Your task to perform on an android device: Go to network settings Image 0: 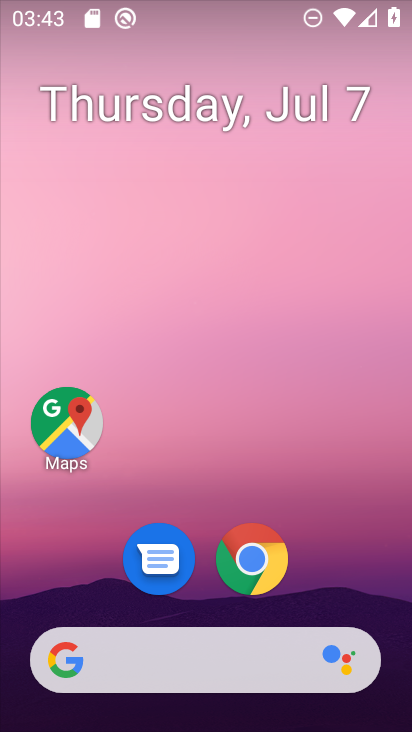
Step 0: drag from (364, 586) to (376, 297)
Your task to perform on an android device: Go to network settings Image 1: 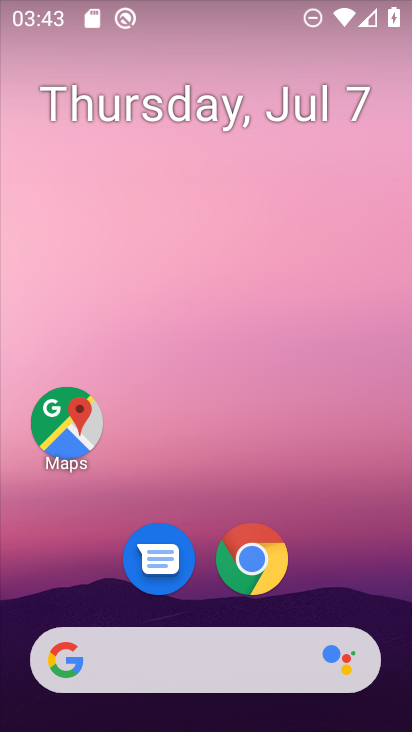
Step 1: drag from (356, 545) to (357, 184)
Your task to perform on an android device: Go to network settings Image 2: 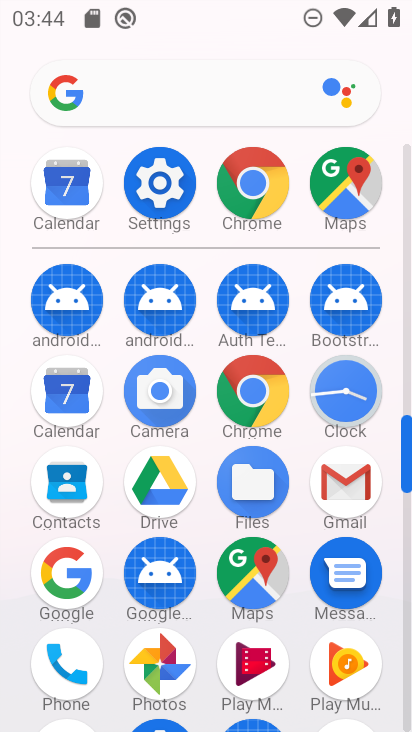
Step 2: click (171, 187)
Your task to perform on an android device: Go to network settings Image 3: 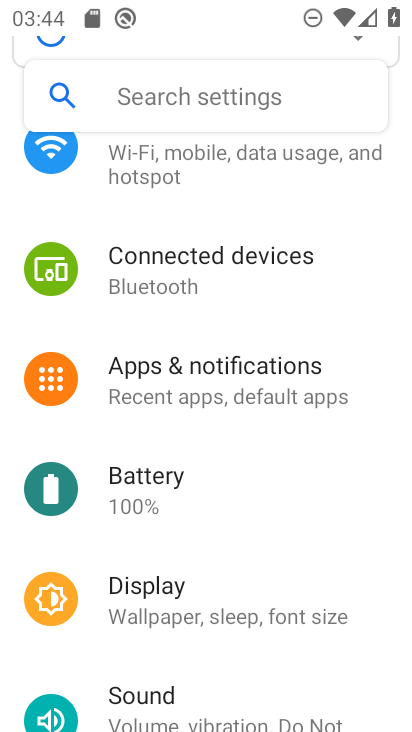
Step 3: drag from (301, 522) to (298, 430)
Your task to perform on an android device: Go to network settings Image 4: 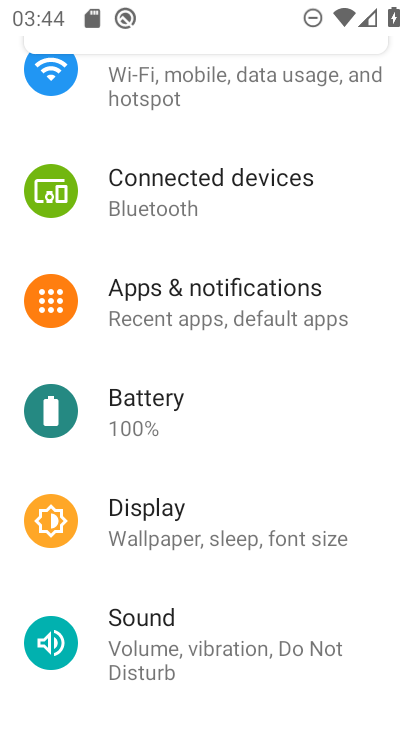
Step 4: drag from (343, 578) to (354, 497)
Your task to perform on an android device: Go to network settings Image 5: 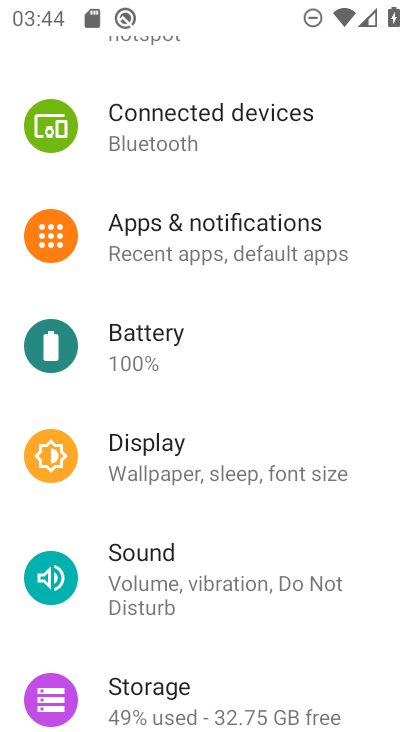
Step 5: drag from (368, 569) to (368, 478)
Your task to perform on an android device: Go to network settings Image 6: 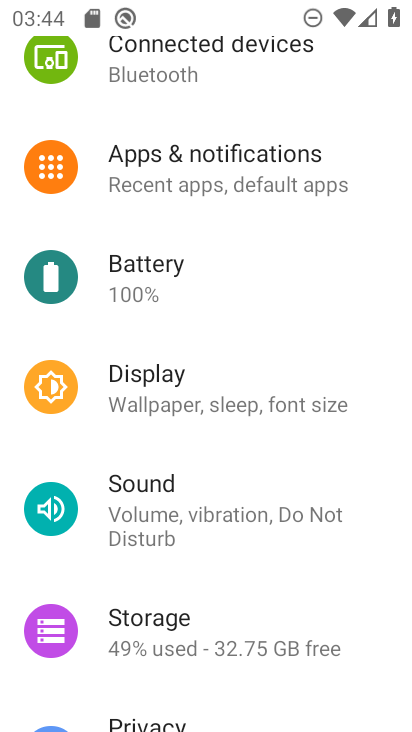
Step 6: drag from (361, 570) to (362, 510)
Your task to perform on an android device: Go to network settings Image 7: 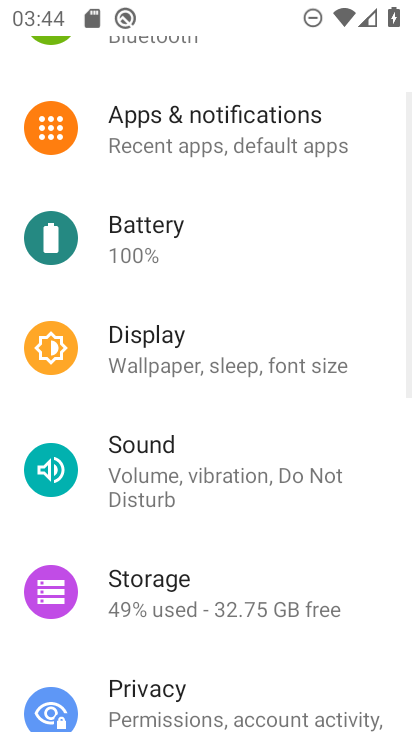
Step 7: drag from (361, 549) to (360, 463)
Your task to perform on an android device: Go to network settings Image 8: 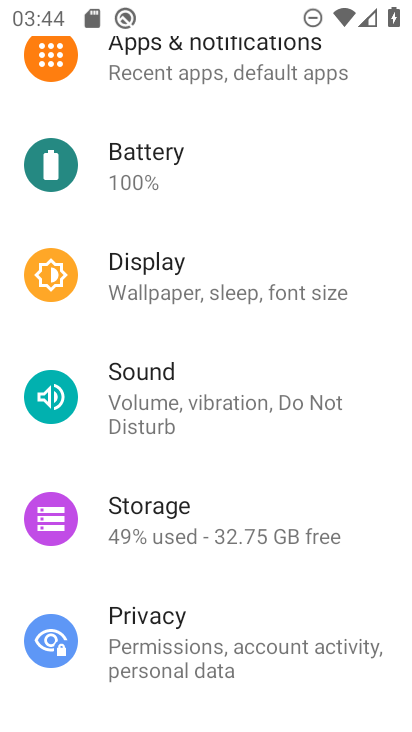
Step 8: drag from (368, 540) to (369, 460)
Your task to perform on an android device: Go to network settings Image 9: 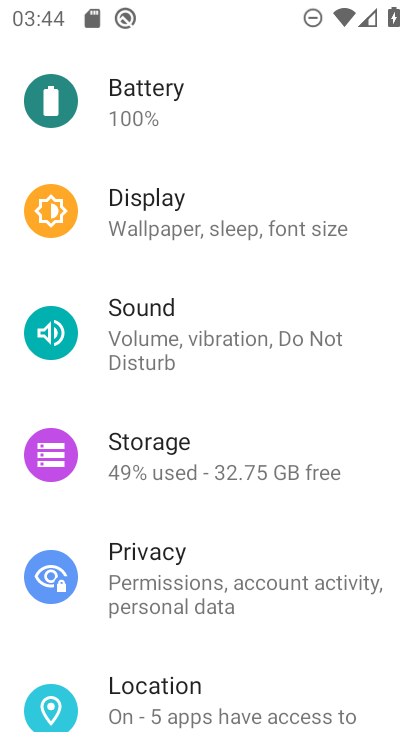
Step 9: drag from (362, 605) to (362, 495)
Your task to perform on an android device: Go to network settings Image 10: 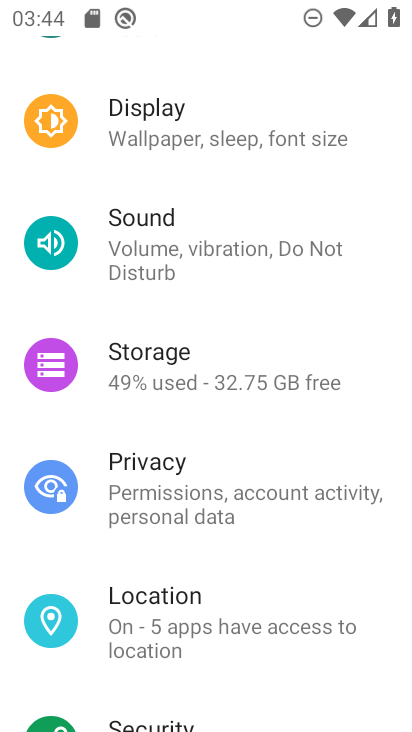
Step 10: drag from (361, 564) to (363, 472)
Your task to perform on an android device: Go to network settings Image 11: 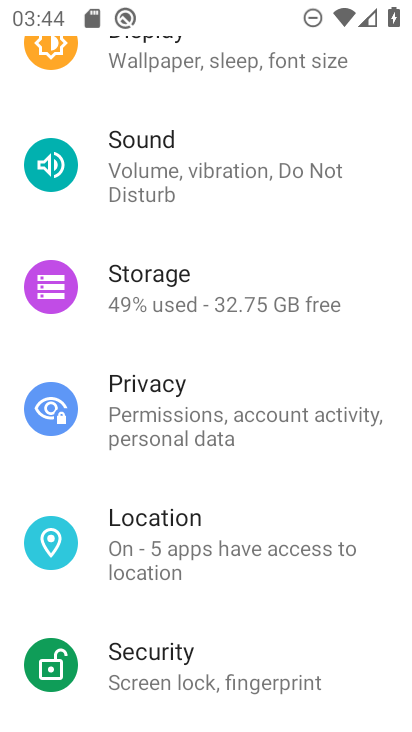
Step 11: drag from (363, 551) to (365, 466)
Your task to perform on an android device: Go to network settings Image 12: 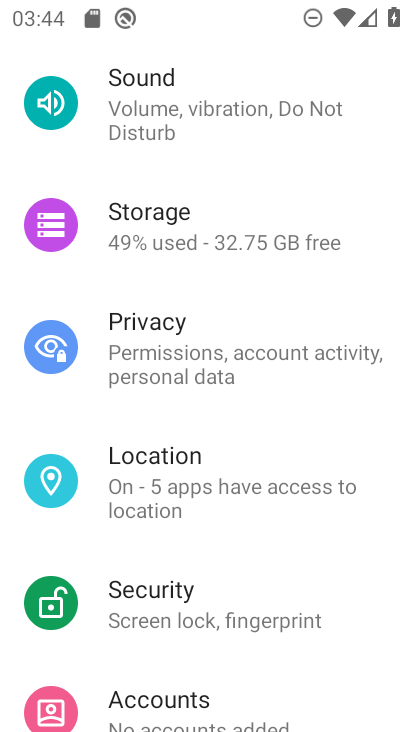
Step 12: drag from (363, 556) to (365, 466)
Your task to perform on an android device: Go to network settings Image 13: 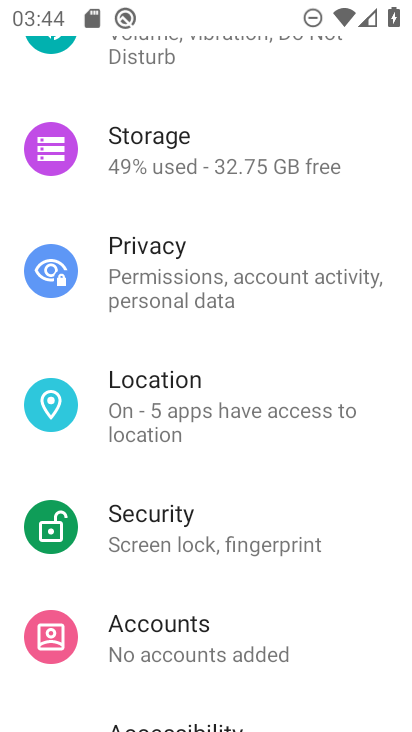
Step 13: drag from (358, 549) to (362, 458)
Your task to perform on an android device: Go to network settings Image 14: 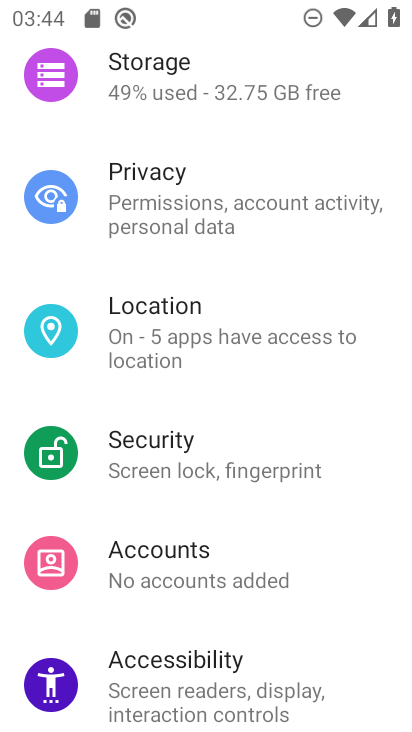
Step 14: drag from (350, 552) to (350, 423)
Your task to perform on an android device: Go to network settings Image 15: 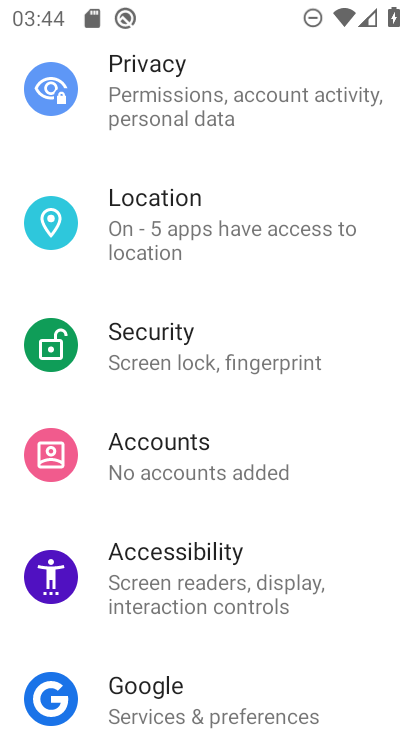
Step 15: drag from (350, 510) to (355, 370)
Your task to perform on an android device: Go to network settings Image 16: 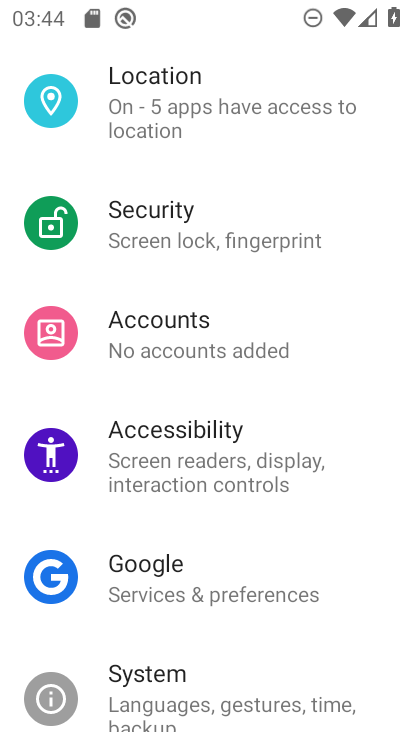
Step 16: drag from (360, 280) to (360, 352)
Your task to perform on an android device: Go to network settings Image 17: 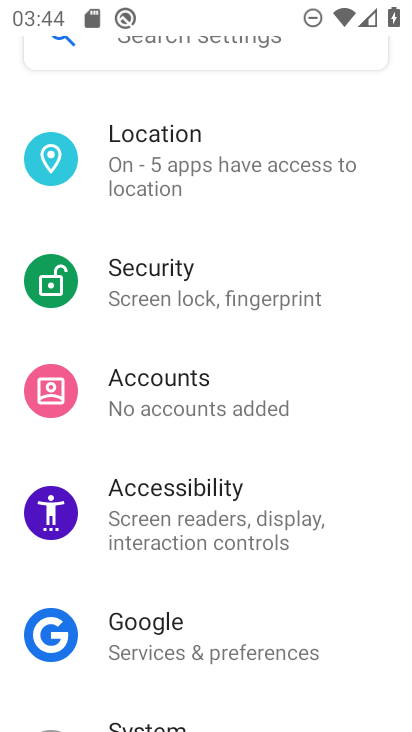
Step 17: drag from (366, 282) to (366, 355)
Your task to perform on an android device: Go to network settings Image 18: 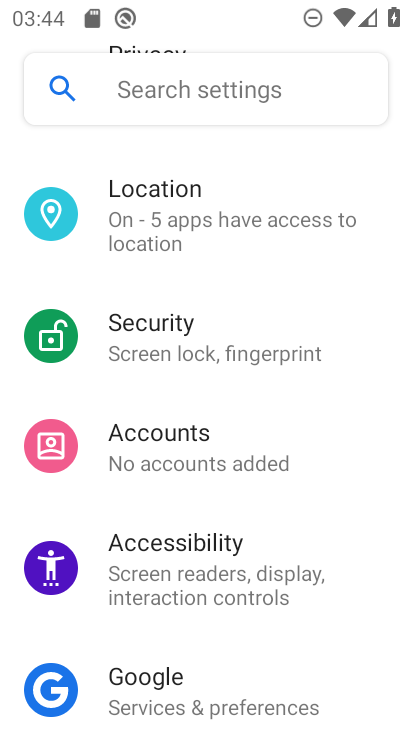
Step 18: drag from (366, 289) to (365, 372)
Your task to perform on an android device: Go to network settings Image 19: 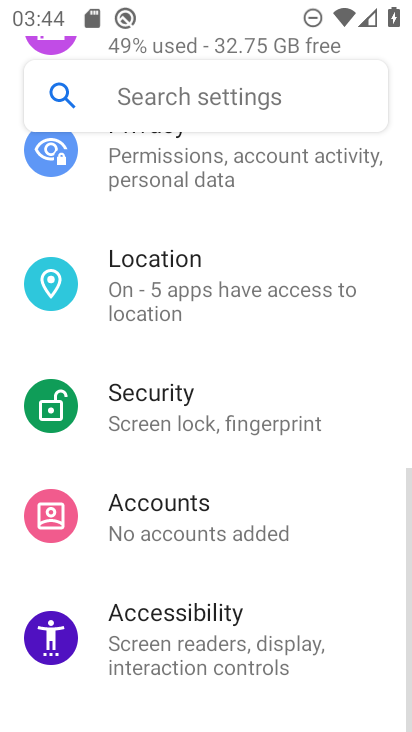
Step 19: drag from (358, 288) to (358, 373)
Your task to perform on an android device: Go to network settings Image 20: 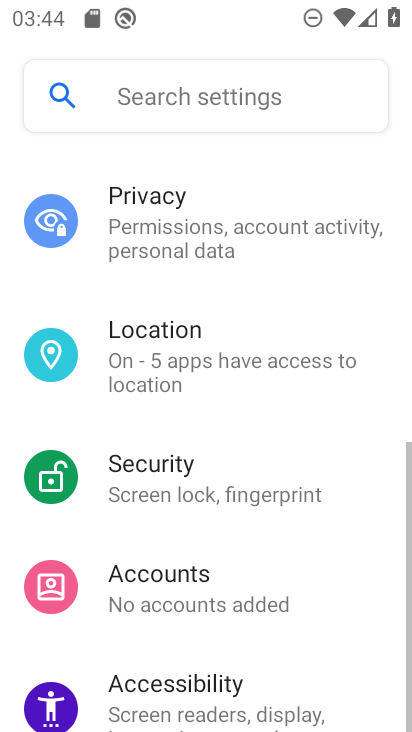
Step 20: drag from (366, 319) to (366, 410)
Your task to perform on an android device: Go to network settings Image 21: 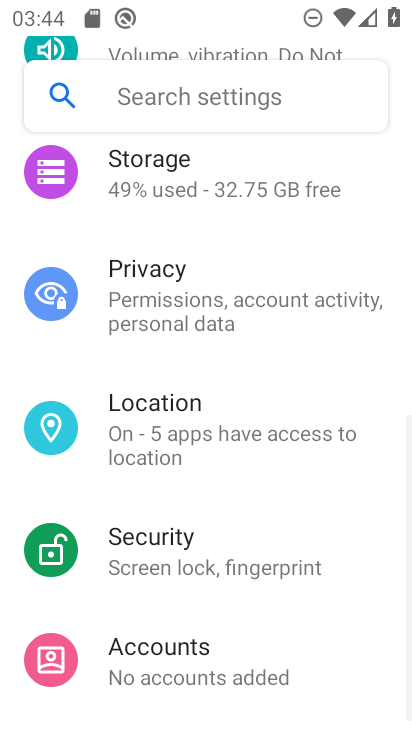
Step 21: drag from (366, 327) to (368, 405)
Your task to perform on an android device: Go to network settings Image 22: 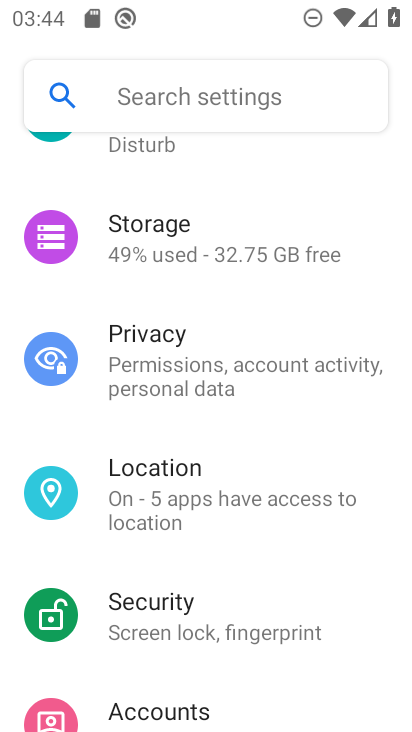
Step 22: drag from (361, 312) to (355, 417)
Your task to perform on an android device: Go to network settings Image 23: 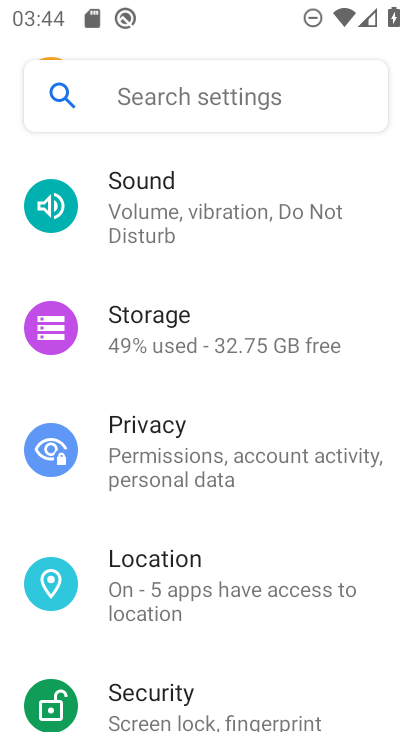
Step 23: drag from (354, 301) to (353, 410)
Your task to perform on an android device: Go to network settings Image 24: 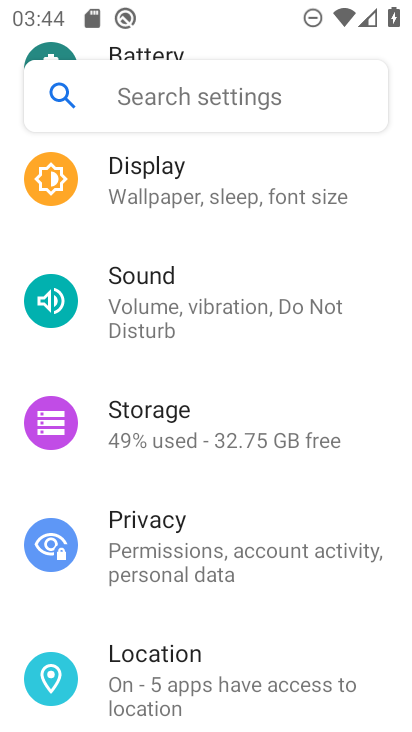
Step 24: drag from (358, 281) to (360, 394)
Your task to perform on an android device: Go to network settings Image 25: 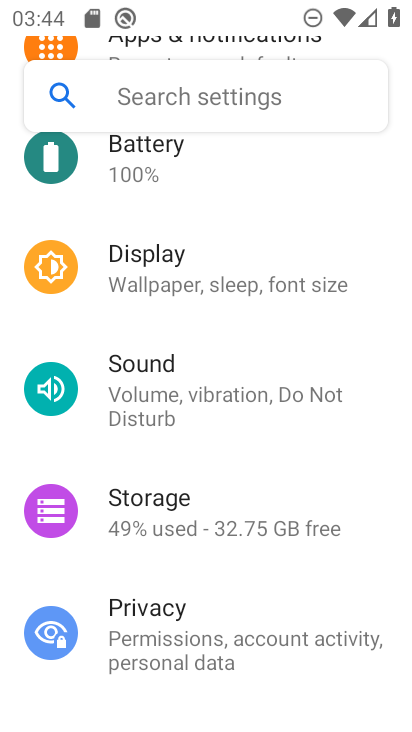
Step 25: drag from (369, 263) to (360, 399)
Your task to perform on an android device: Go to network settings Image 26: 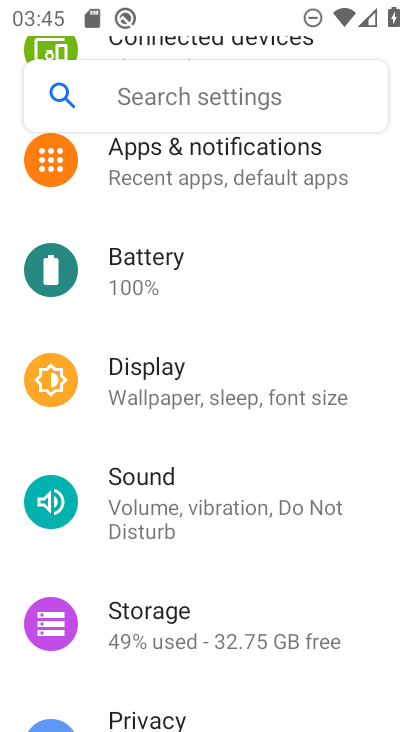
Step 26: drag from (361, 259) to (353, 364)
Your task to perform on an android device: Go to network settings Image 27: 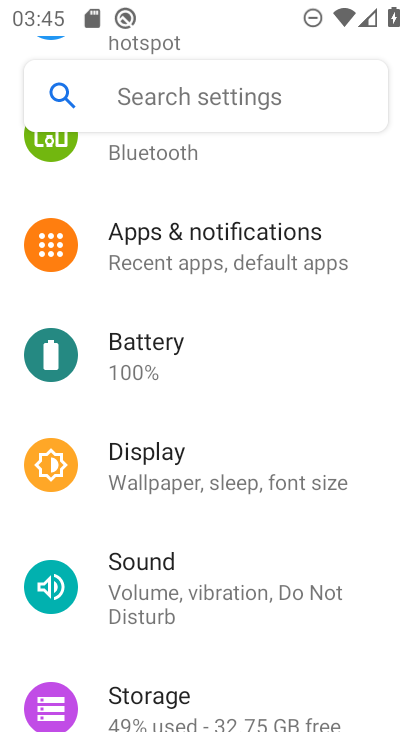
Step 27: drag from (364, 246) to (361, 509)
Your task to perform on an android device: Go to network settings Image 28: 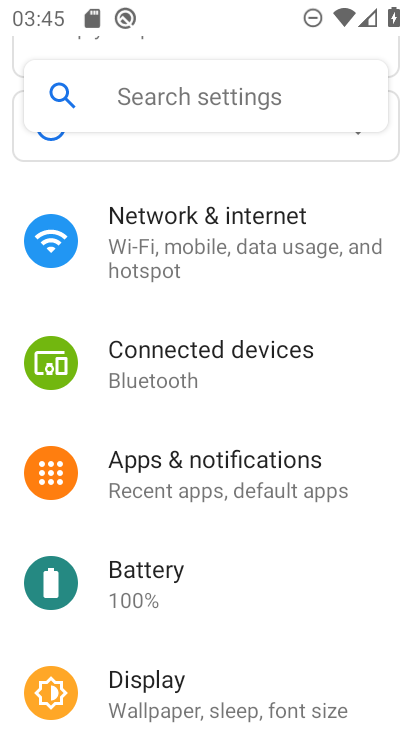
Step 28: click (307, 247)
Your task to perform on an android device: Go to network settings Image 29: 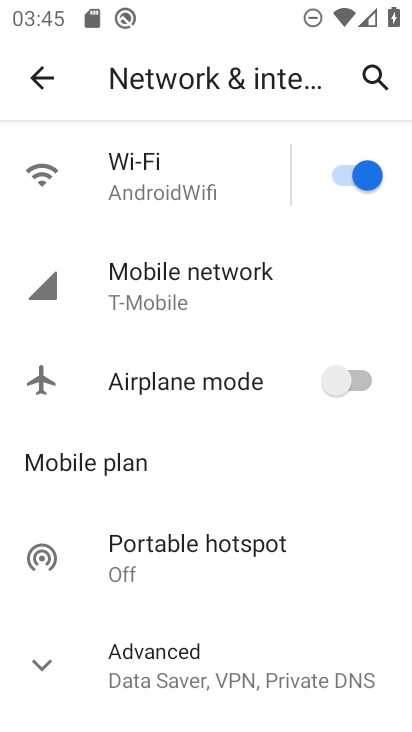
Step 29: task complete